Your task to perform on an android device: Clear the cart on target.com. Image 0: 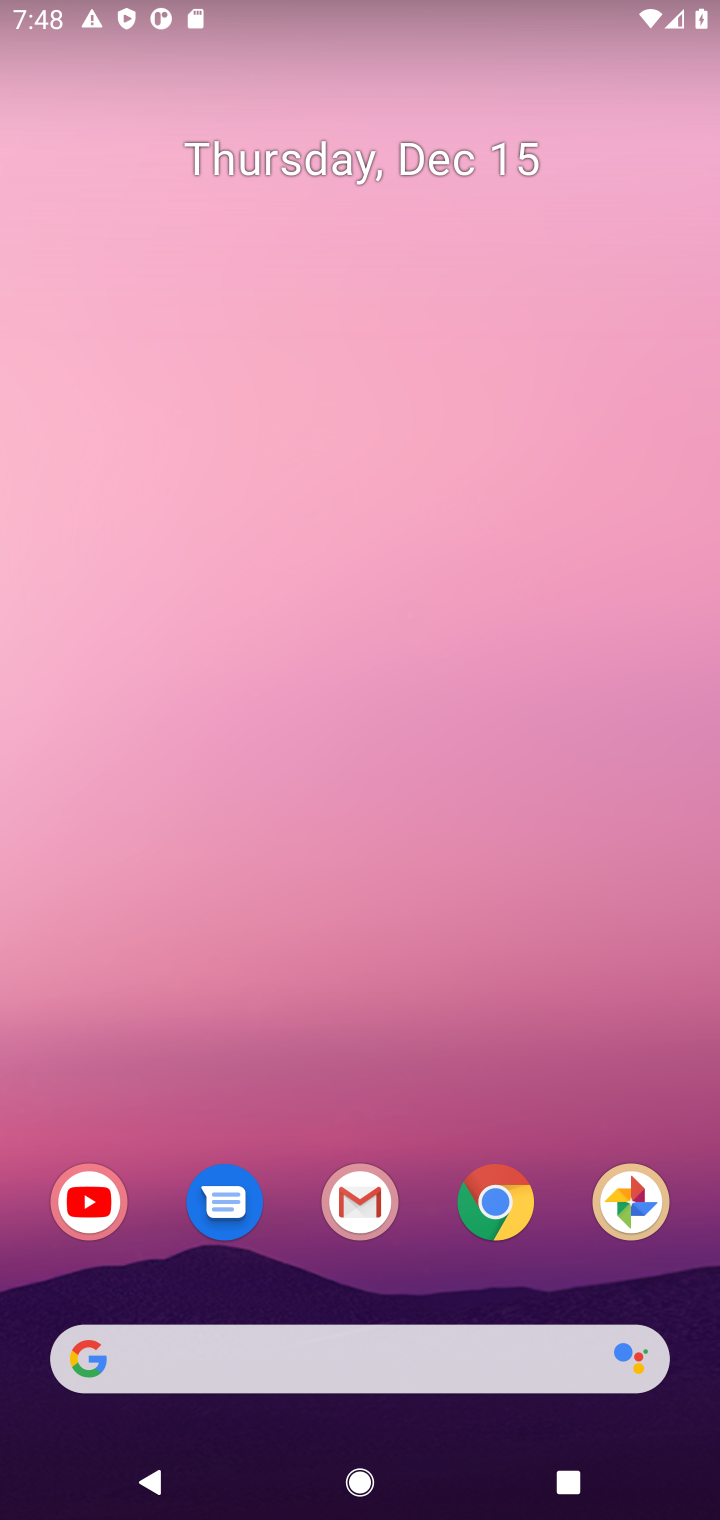
Step 0: click (505, 1213)
Your task to perform on an android device: Clear the cart on target.com. Image 1: 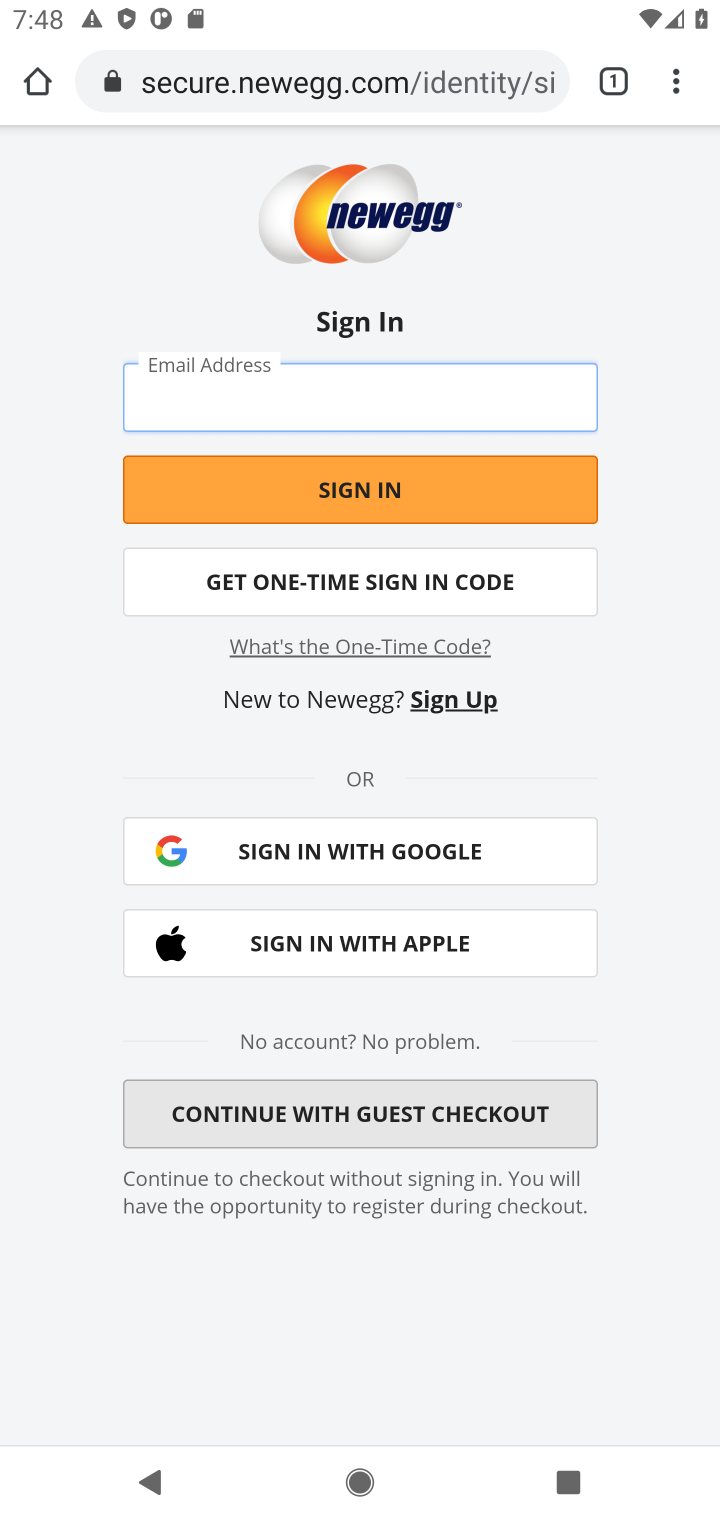
Step 1: click (273, 84)
Your task to perform on an android device: Clear the cart on target.com. Image 2: 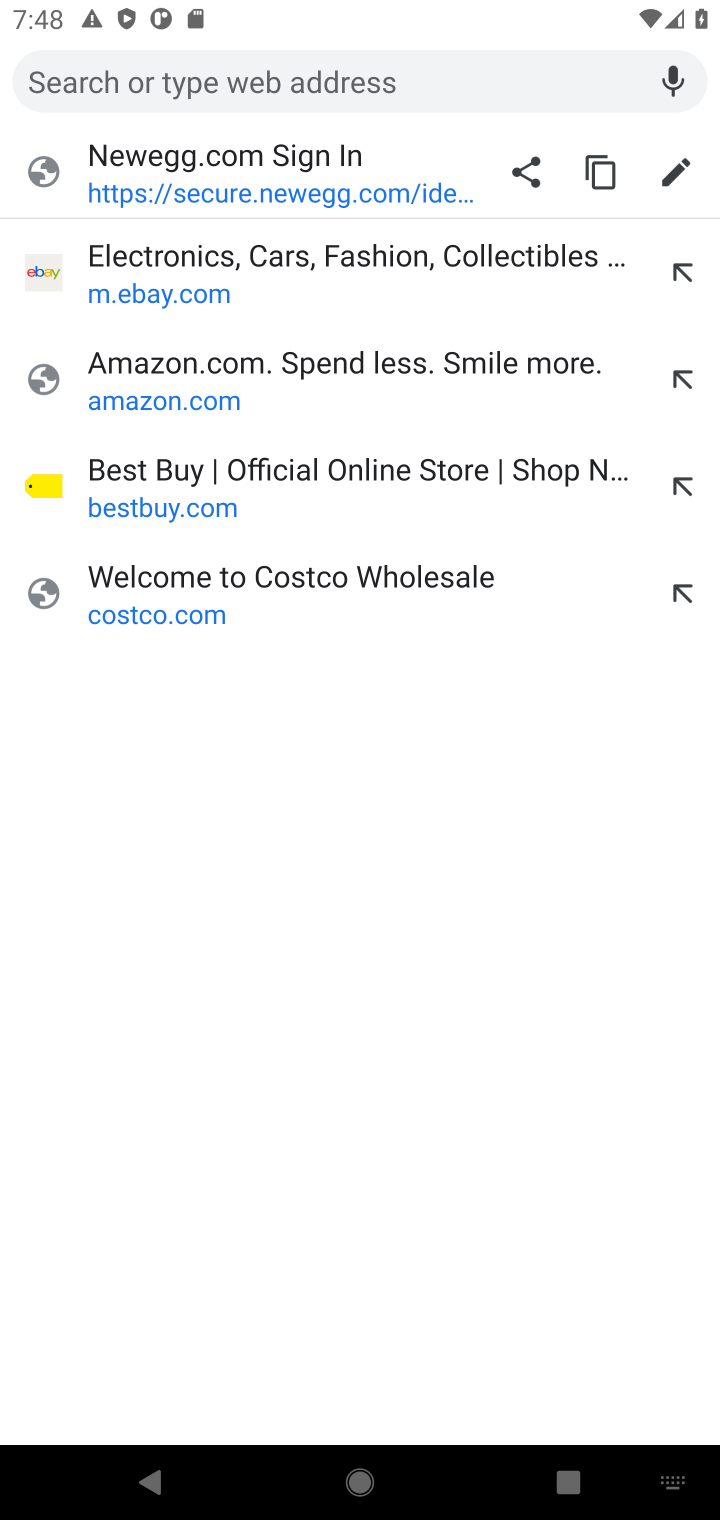
Step 2: type "target.com"
Your task to perform on an android device: Clear the cart on target.com. Image 3: 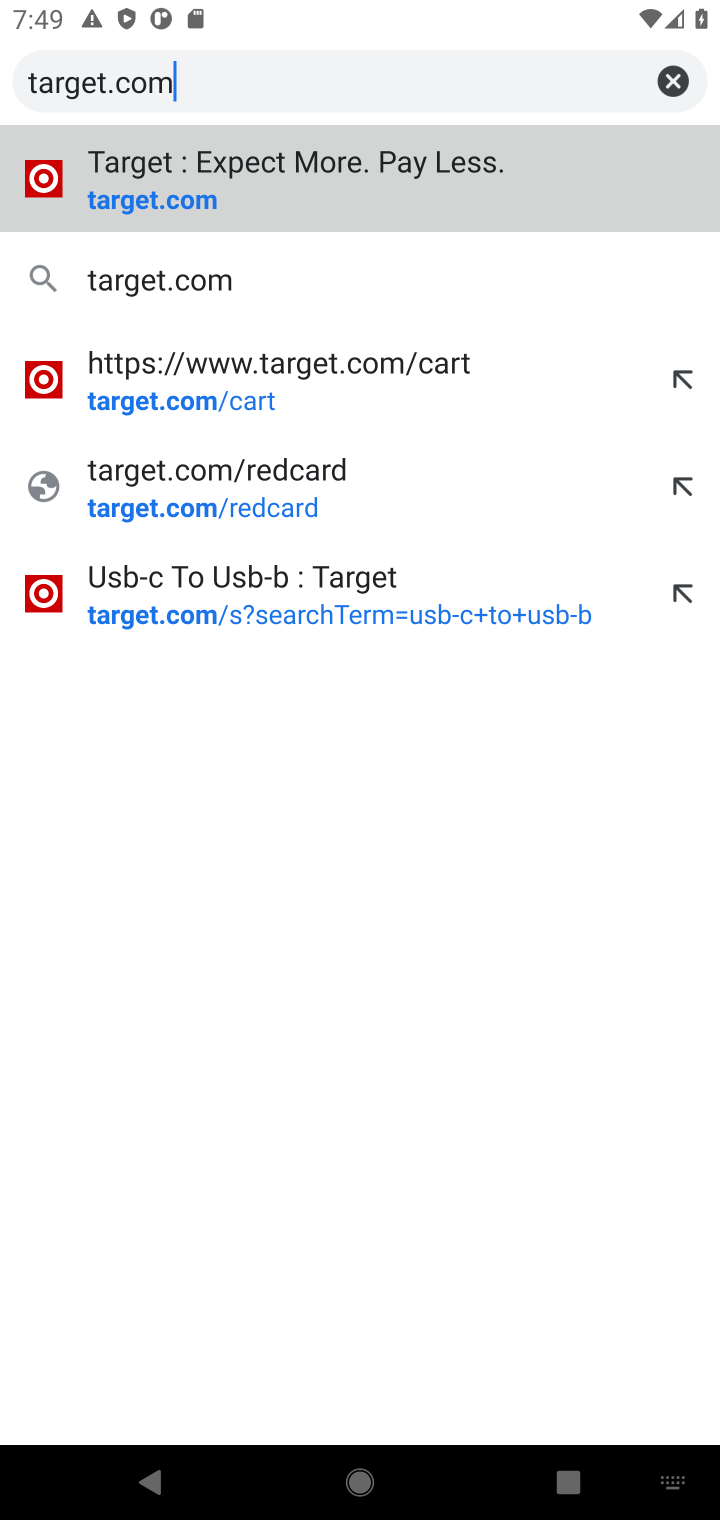
Step 3: click (143, 214)
Your task to perform on an android device: Clear the cart on target.com. Image 4: 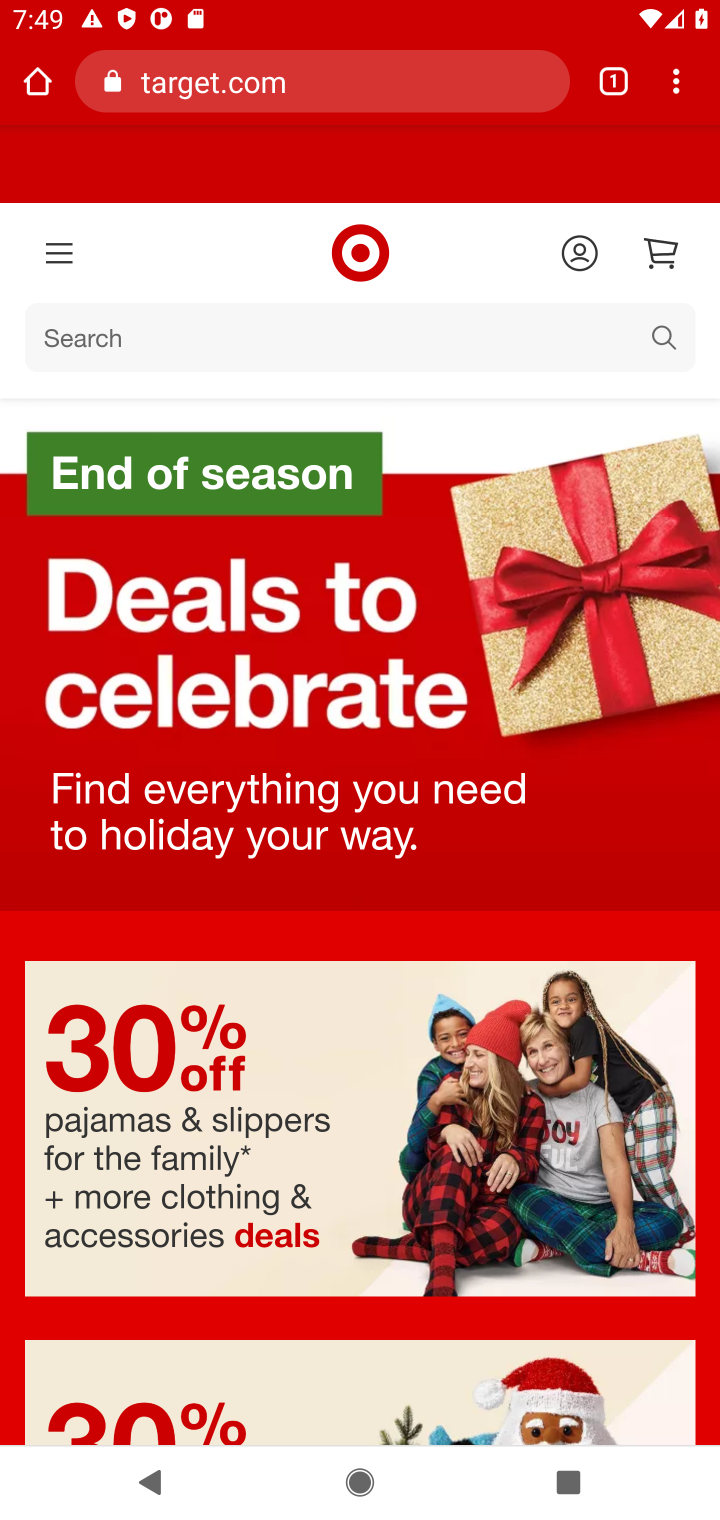
Step 4: click (663, 250)
Your task to perform on an android device: Clear the cart on target.com. Image 5: 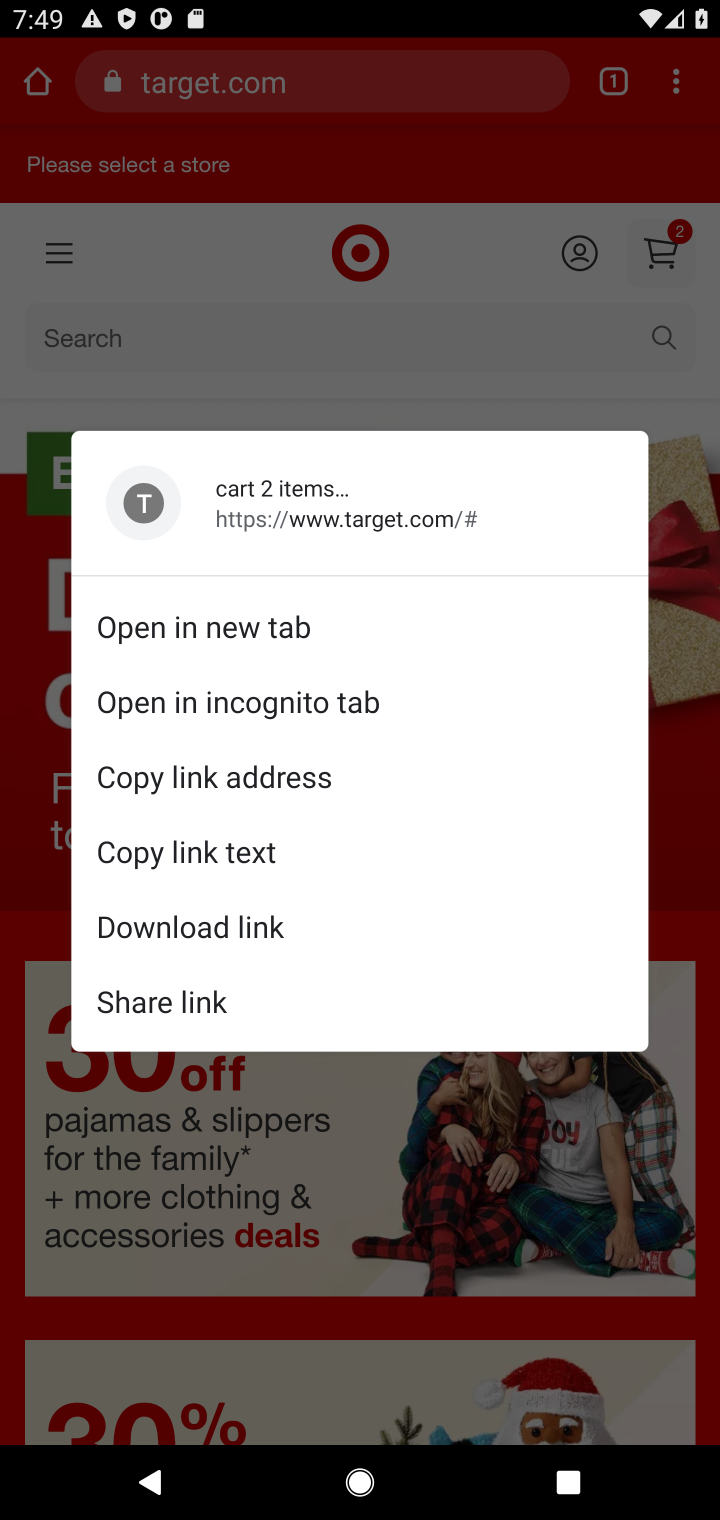
Step 5: click (663, 250)
Your task to perform on an android device: Clear the cart on target.com. Image 6: 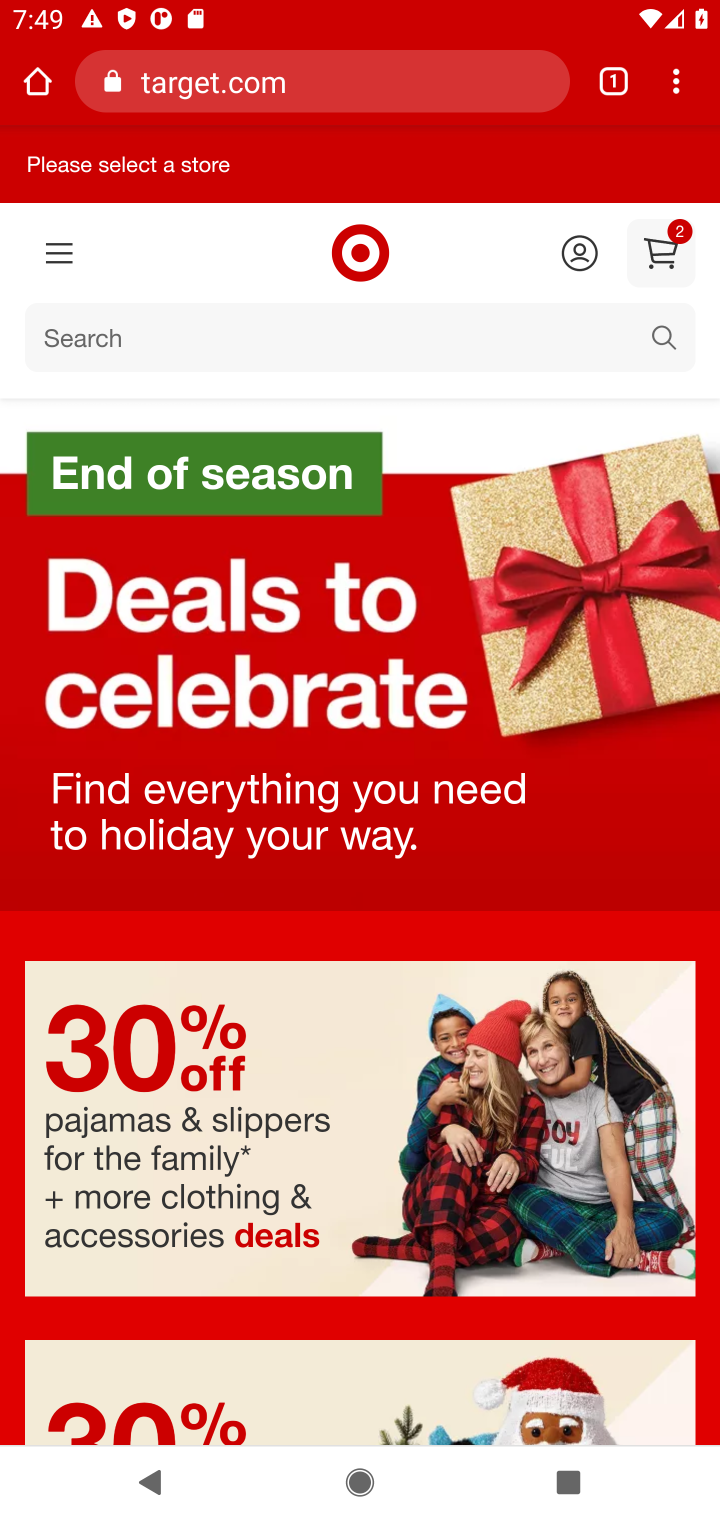
Step 6: click (663, 250)
Your task to perform on an android device: Clear the cart on target.com. Image 7: 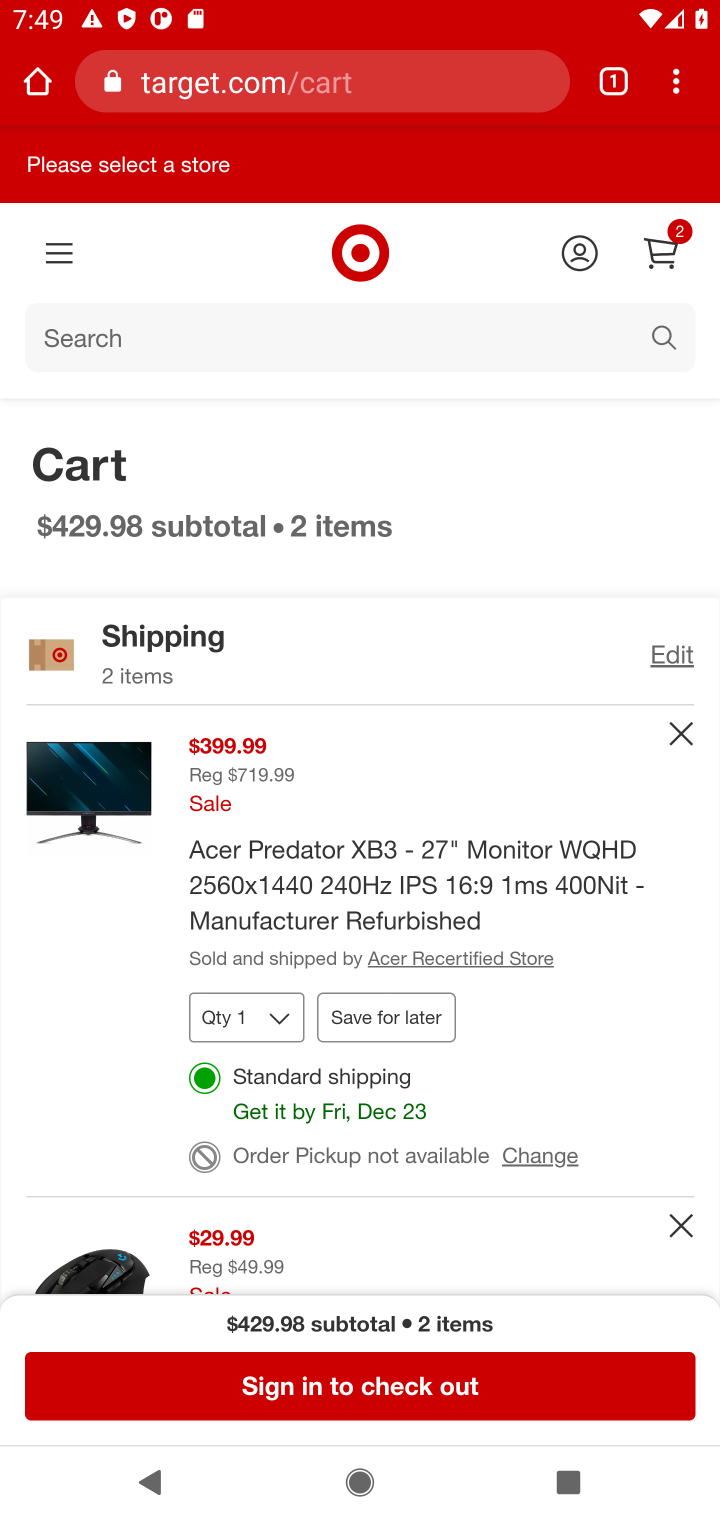
Step 7: click (681, 739)
Your task to perform on an android device: Clear the cart on target.com. Image 8: 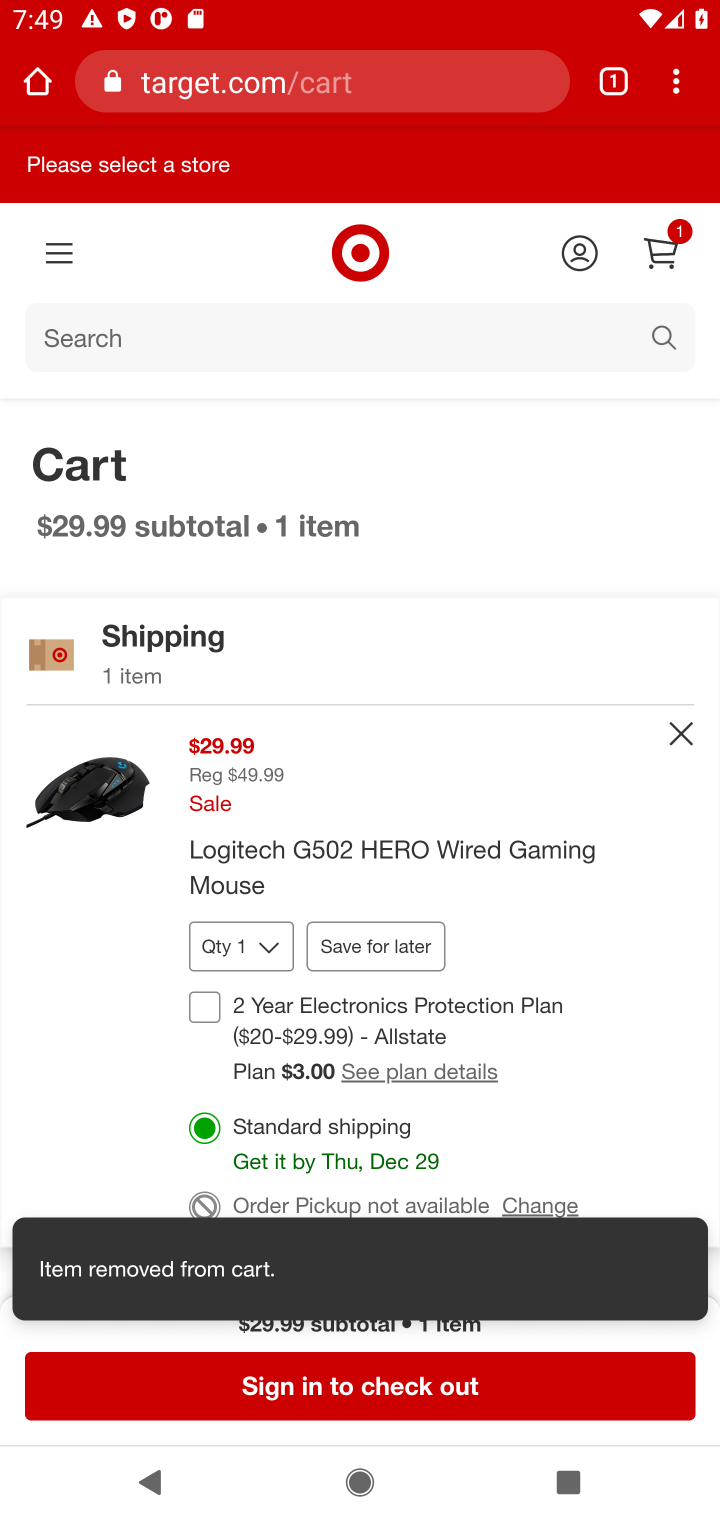
Step 8: click (681, 739)
Your task to perform on an android device: Clear the cart on target.com. Image 9: 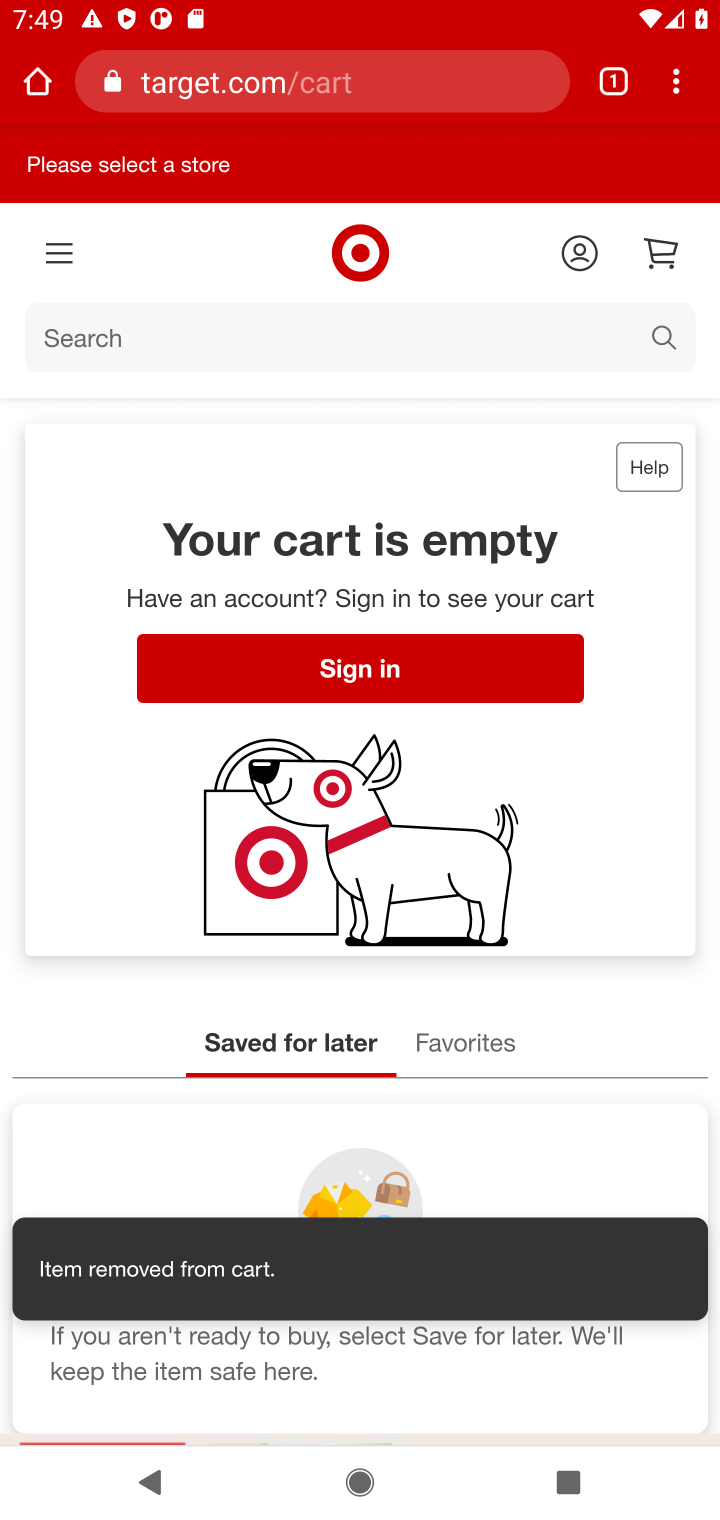
Step 9: task complete